Your task to perform on an android device: move a message to another label in the gmail app Image 0: 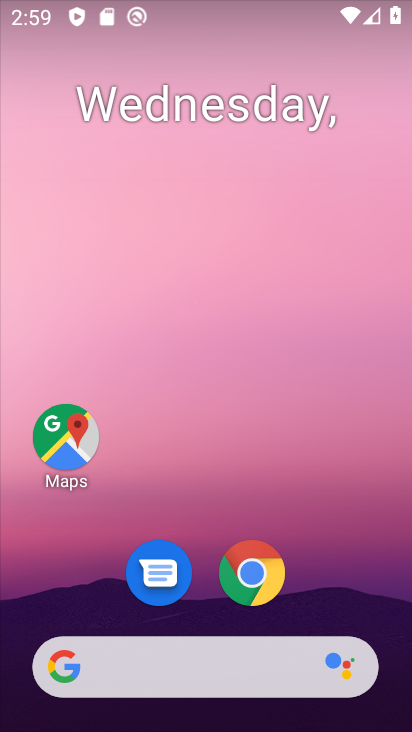
Step 0: drag from (183, 719) to (142, 122)
Your task to perform on an android device: move a message to another label in the gmail app Image 1: 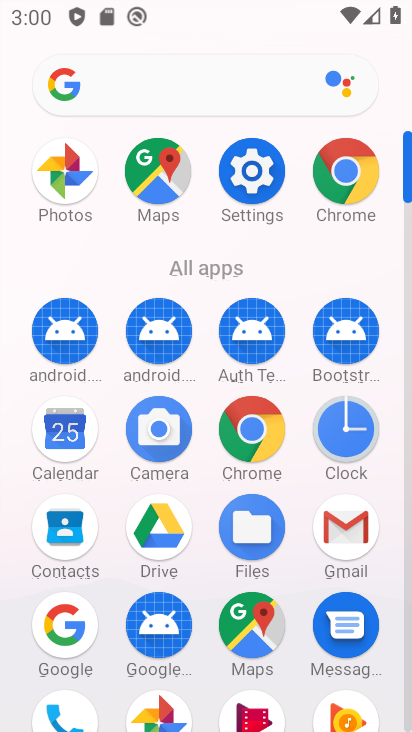
Step 1: click (344, 526)
Your task to perform on an android device: move a message to another label in the gmail app Image 2: 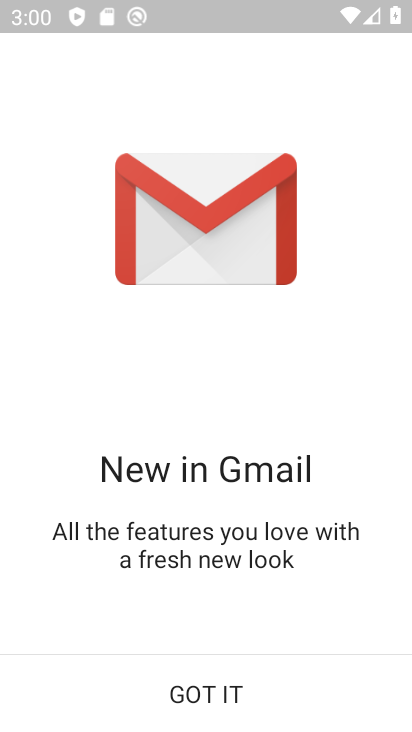
Step 2: click (204, 697)
Your task to perform on an android device: move a message to another label in the gmail app Image 3: 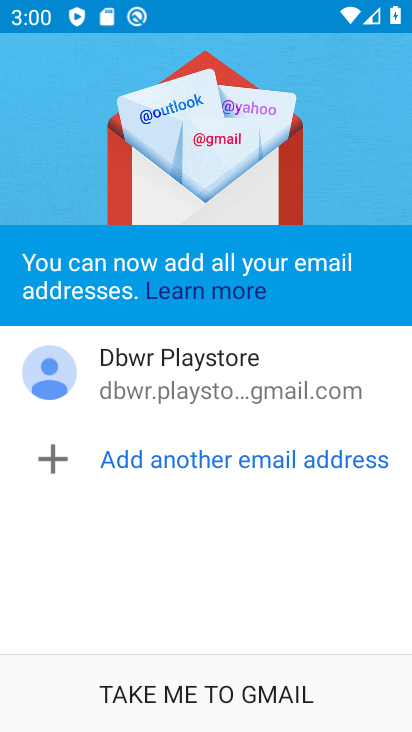
Step 3: click (204, 697)
Your task to perform on an android device: move a message to another label in the gmail app Image 4: 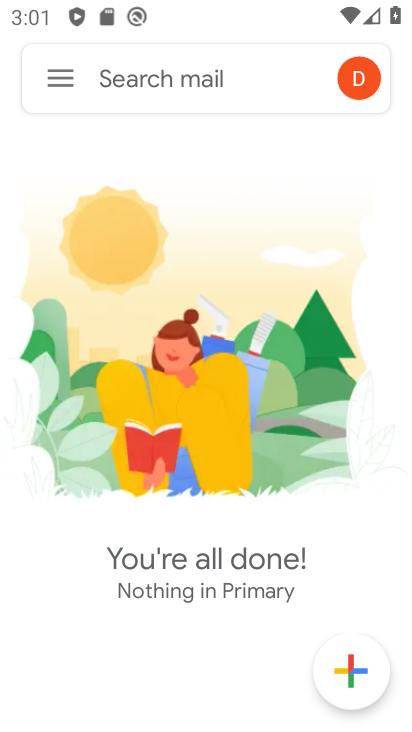
Step 4: task complete